Your task to perform on an android device: Look up the best rated hair dryer on Walmart. Image 0: 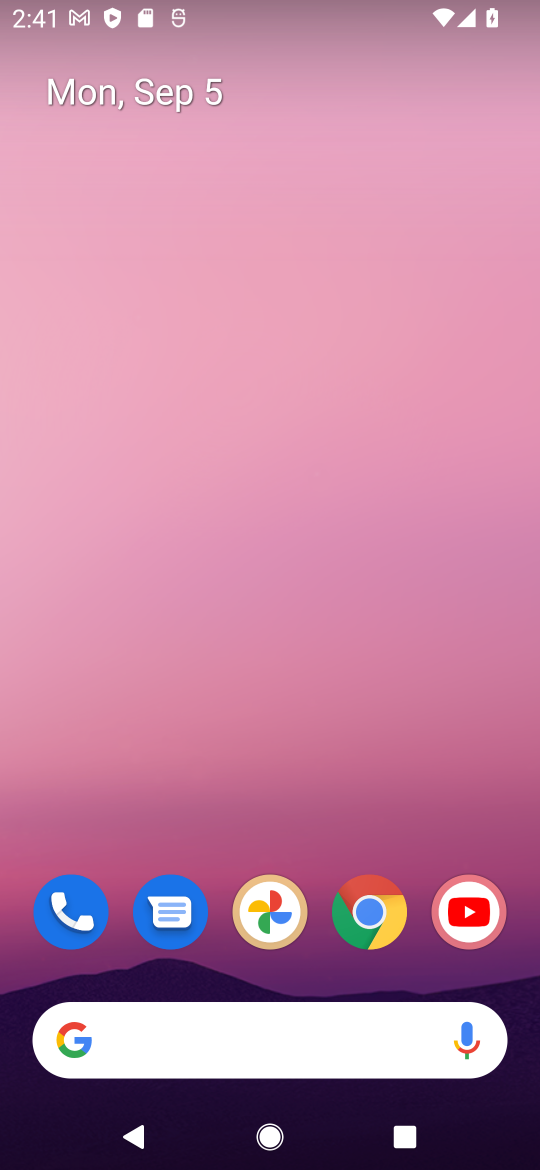
Step 0: click (370, 911)
Your task to perform on an android device: Look up the best rated hair dryer on Walmart. Image 1: 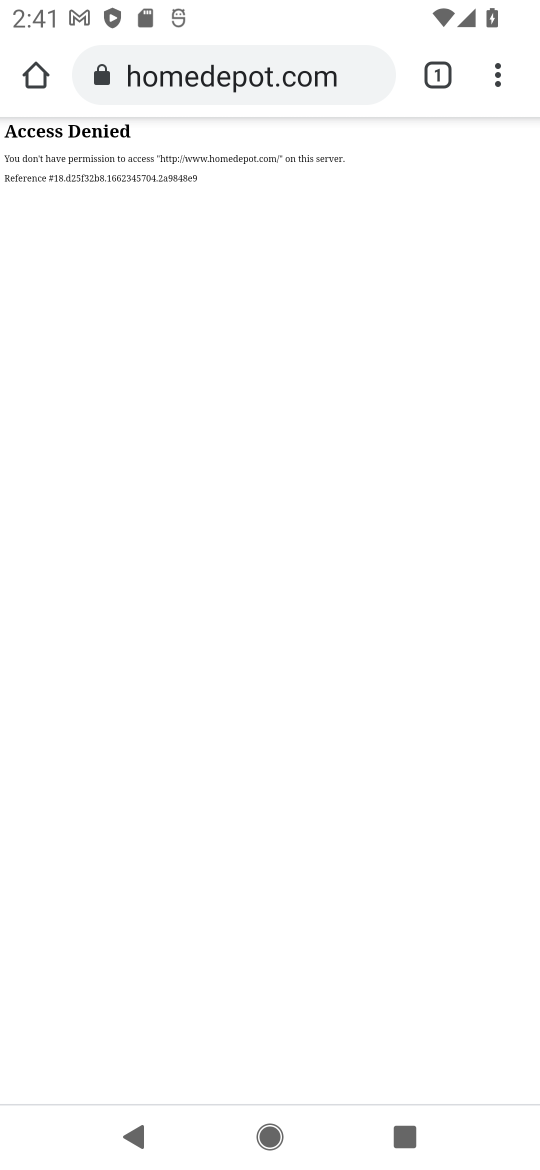
Step 1: click (273, 75)
Your task to perform on an android device: Look up the best rated hair dryer on Walmart. Image 2: 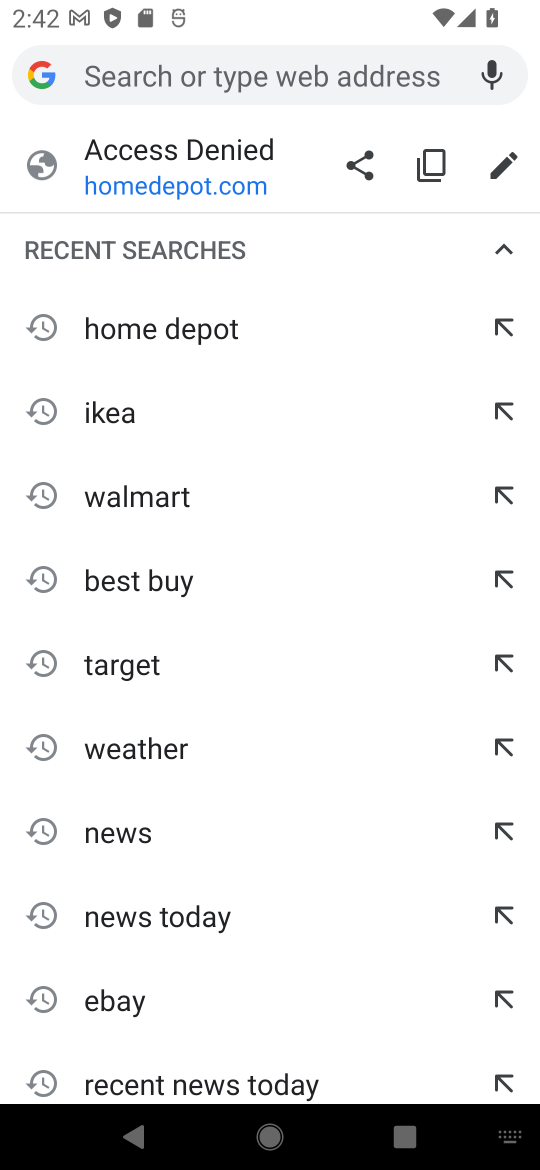
Step 2: type "walmart"
Your task to perform on an android device: Look up the best rated hair dryer on Walmart. Image 3: 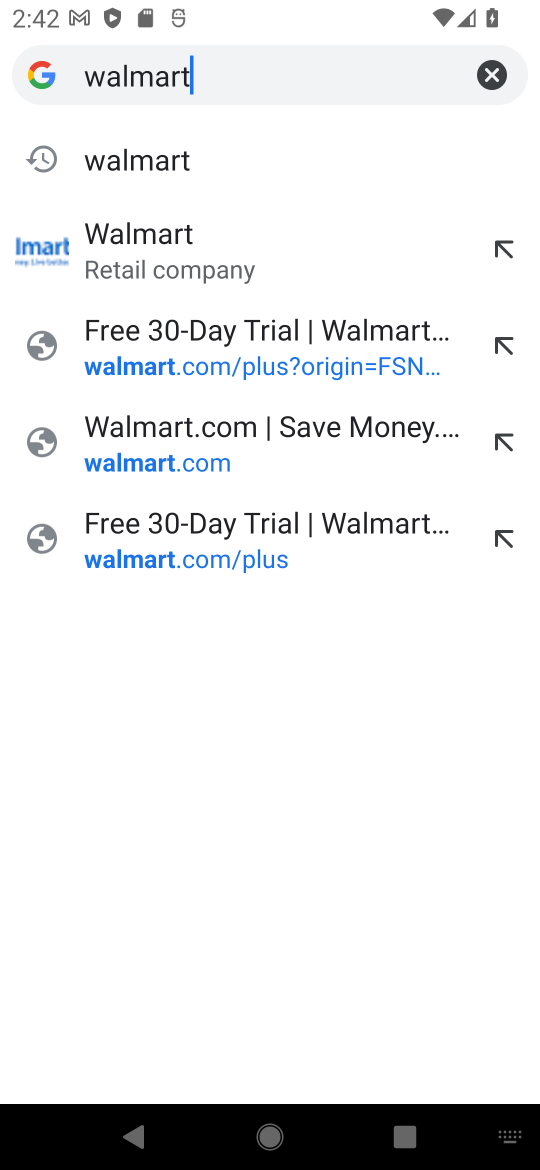
Step 3: press enter
Your task to perform on an android device: Look up the best rated hair dryer on Walmart. Image 4: 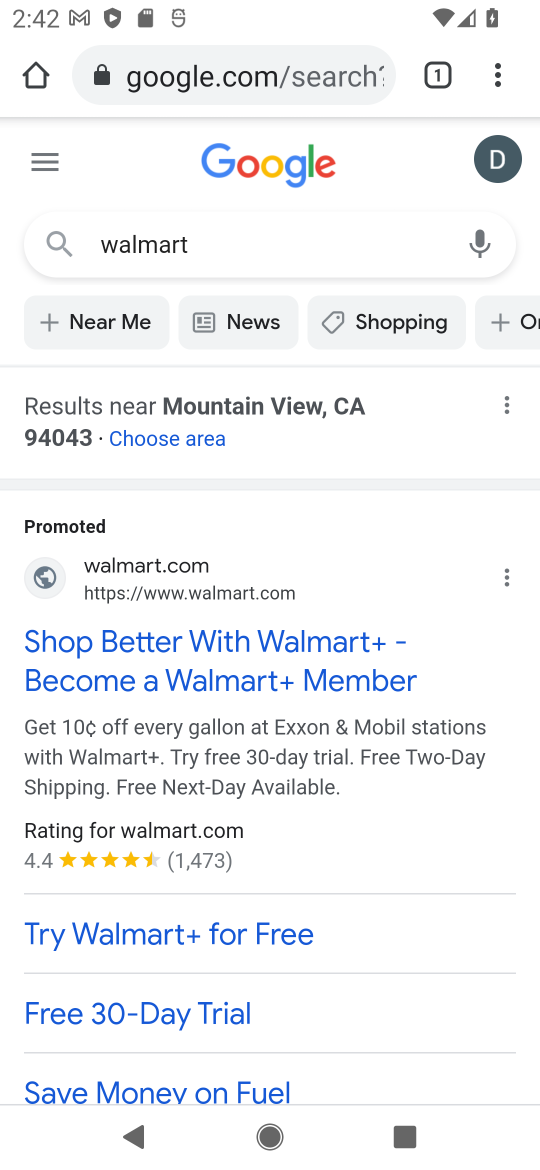
Step 4: drag from (221, 699) to (214, 547)
Your task to perform on an android device: Look up the best rated hair dryer on Walmart. Image 5: 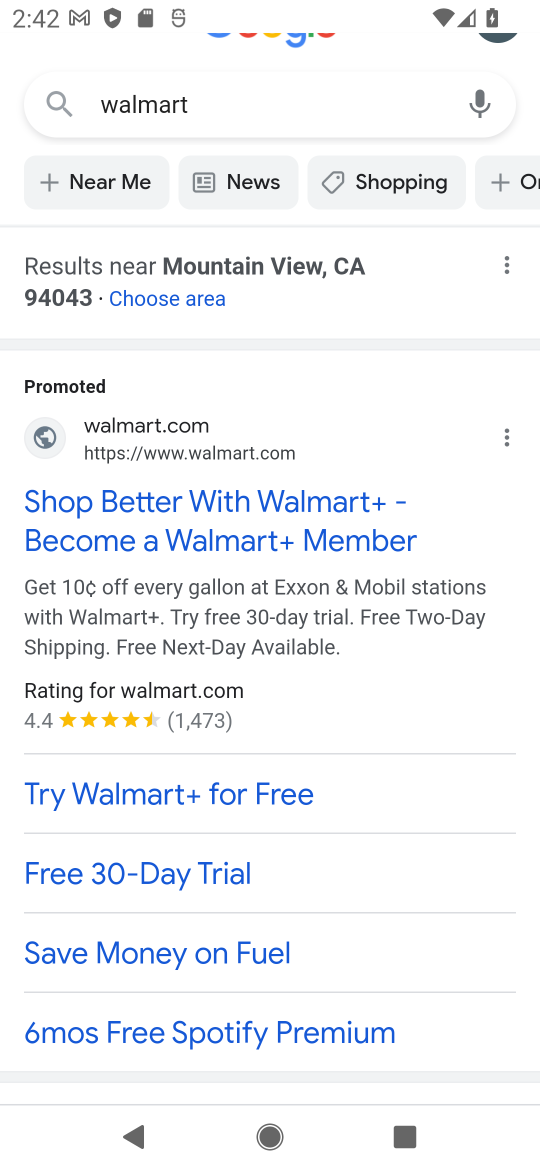
Step 5: drag from (276, 705) to (286, 514)
Your task to perform on an android device: Look up the best rated hair dryer on Walmart. Image 6: 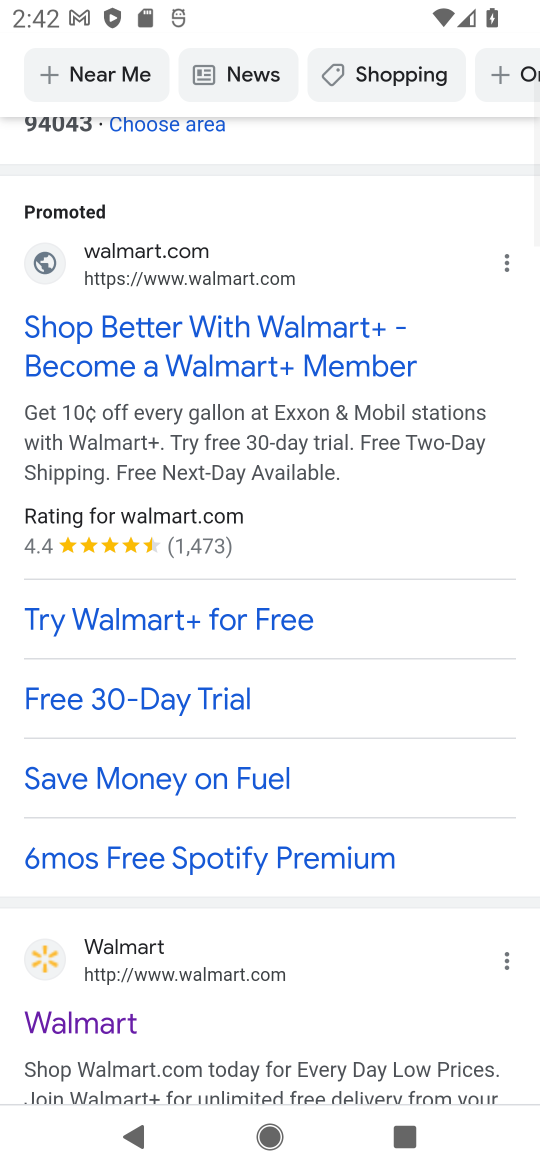
Step 6: drag from (346, 710) to (342, 525)
Your task to perform on an android device: Look up the best rated hair dryer on Walmart. Image 7: 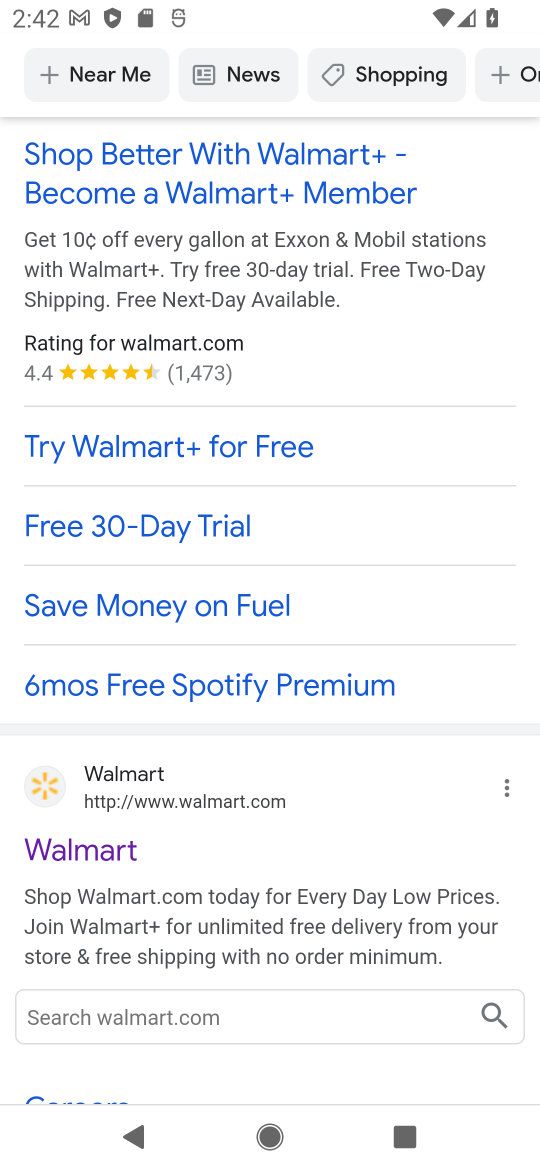
Step 7: click (90, 859)
Your task to perform on an android device: Look up the best rated hair dryer on Walmart. Image 8: 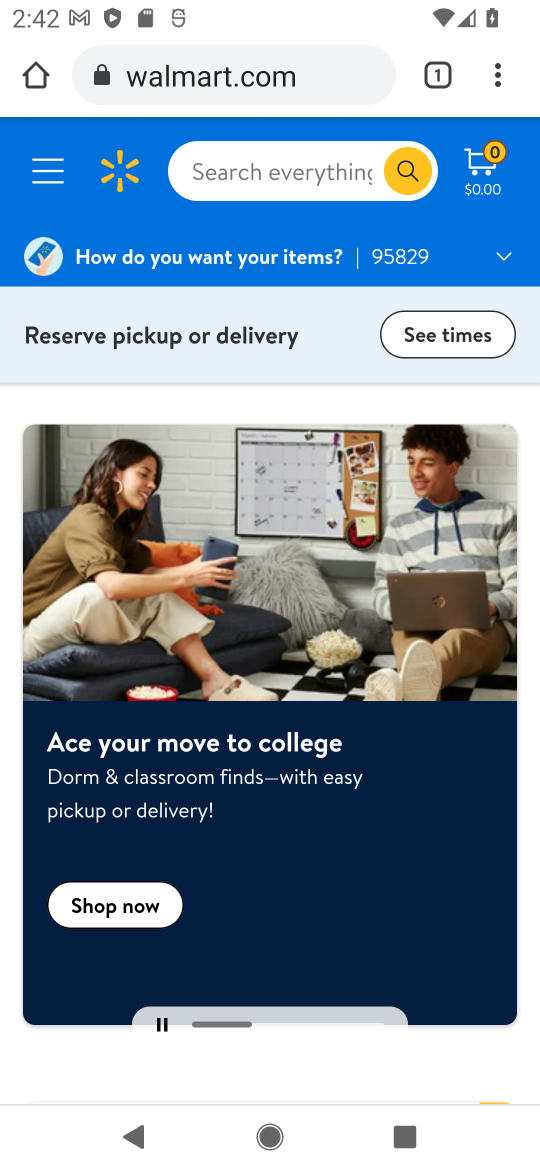
Step 8: click (258, 169)
Your task to perform on an android device: Look up the best rated hair dryer on Walmart. Image 9: 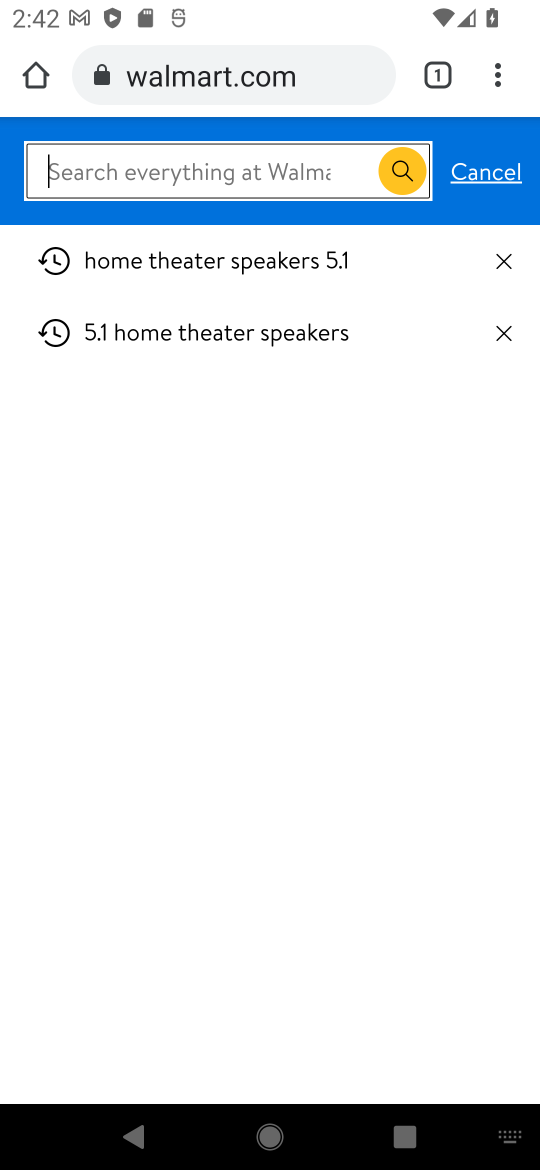
Step 9: type "h"
Your task to perform on an android device: Look up the best rated hair dryer on Walmart. Image 10: 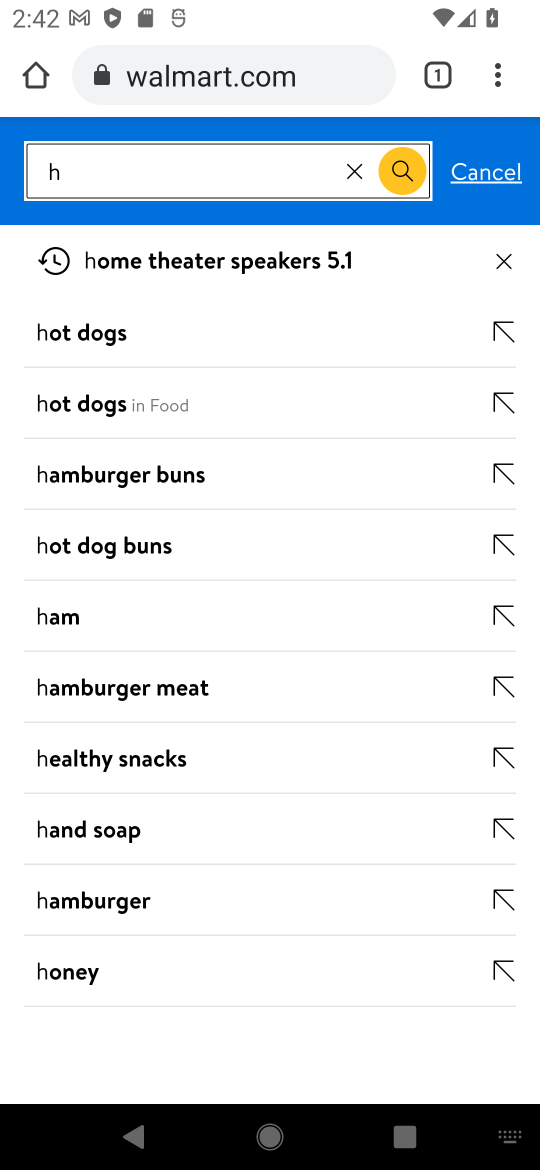
Step 10: type "hair dryer"
Your task to perform on an android device: Look up the best rated hair dryer on Walmart. Image 11: 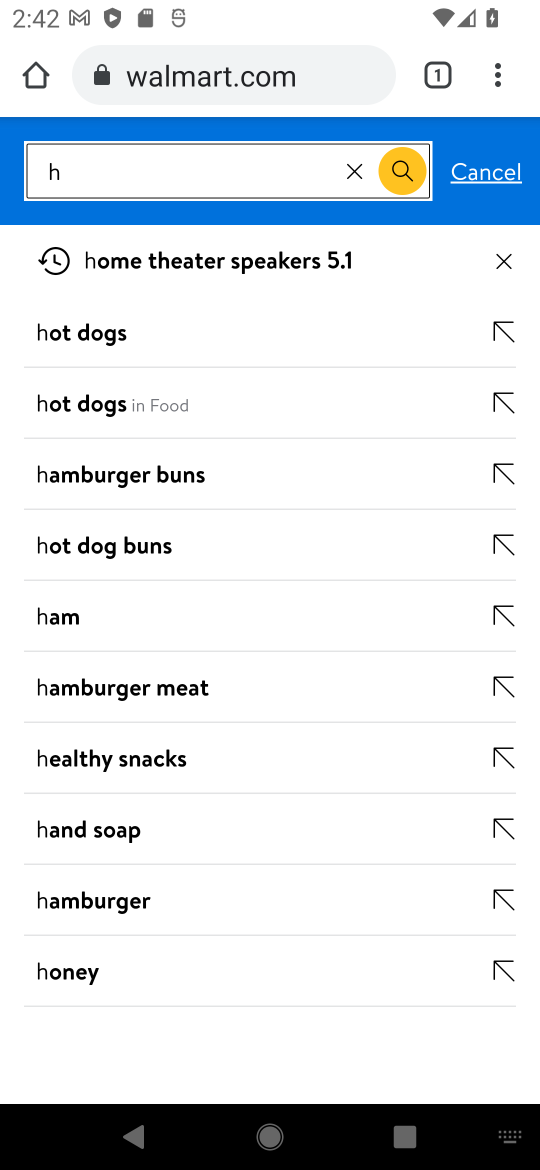
Step 11: type ""
Your task to perform on an android device: Look up the best rated hair dryer on Walmart. Image 12: 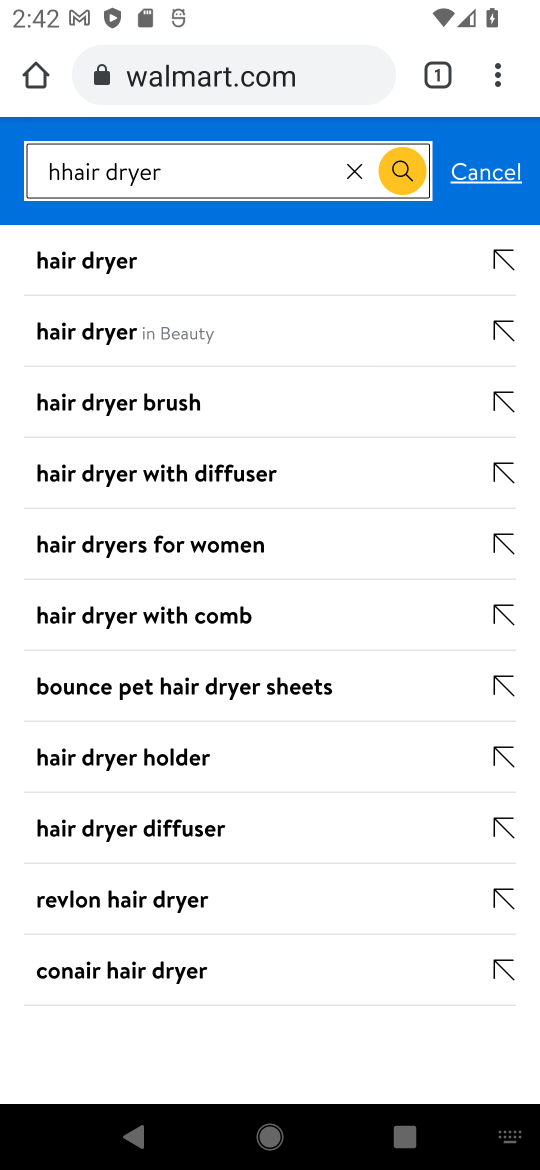
Step 12: press enter
Your task to perform on an android device: Look up the best rated hair dryer on Walmart. Image 13: 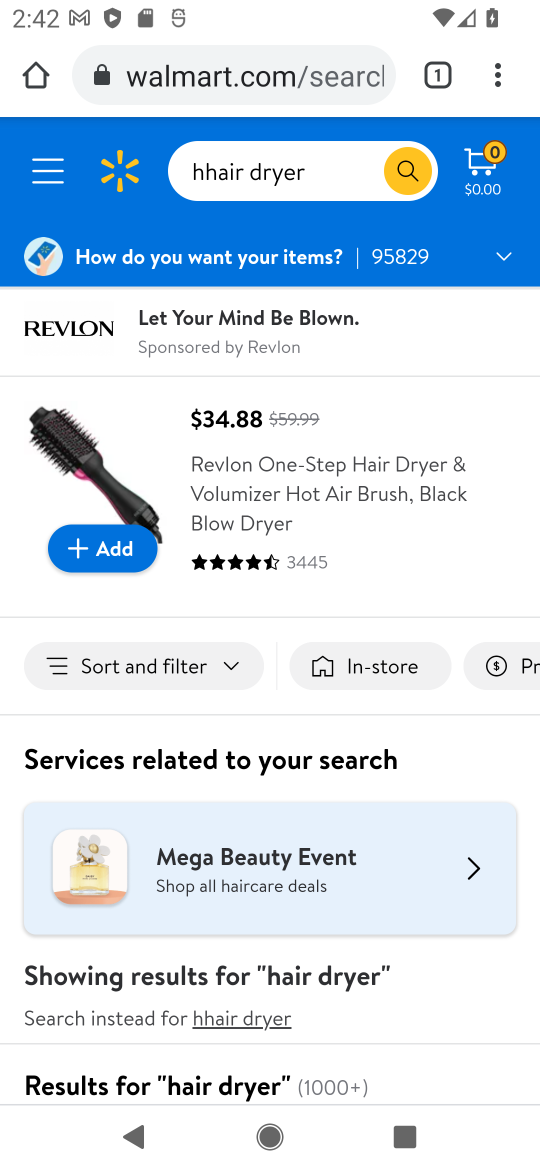
Step 13: drag from (240, 841) to (259, 665)
Your task to perform on an android device: Look up the best rated hair dryer on Walmart. Image 14: 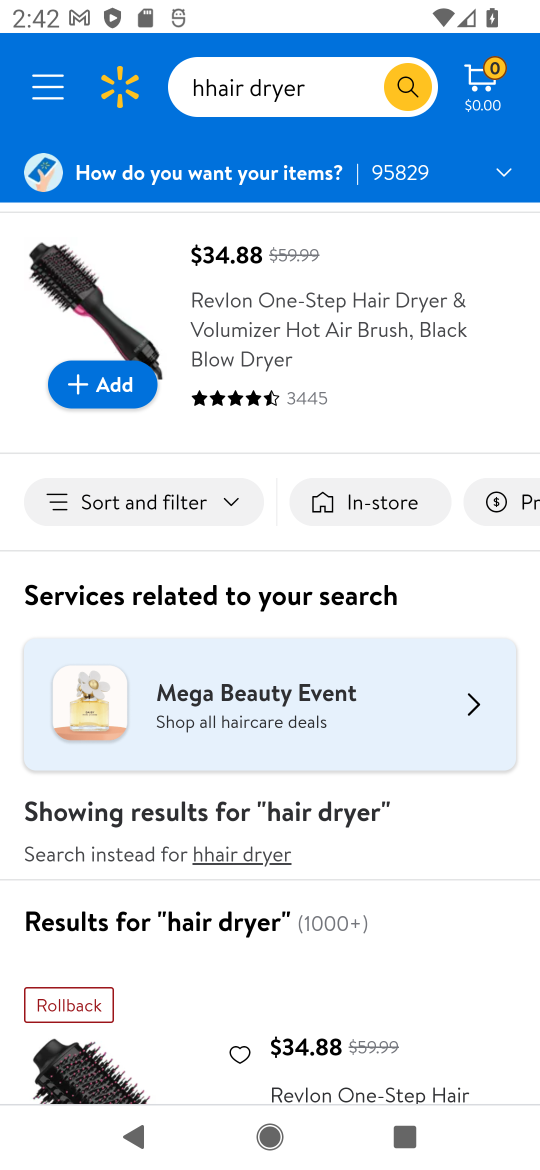
Step 14: click (141, 496)
Your task to perform on an android device: Look up the best rated hair dryer on Walmart. Image 15: 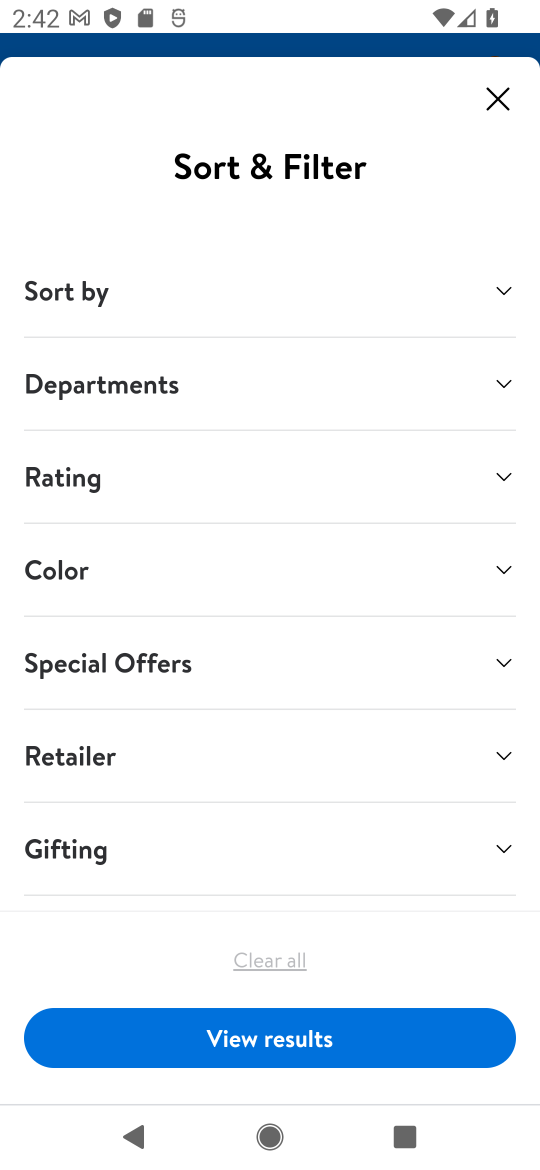
Step 15: click (201, 485)
Your task to perform on an android device: Look up the best rated hair dryer on Walmart. Image 16: 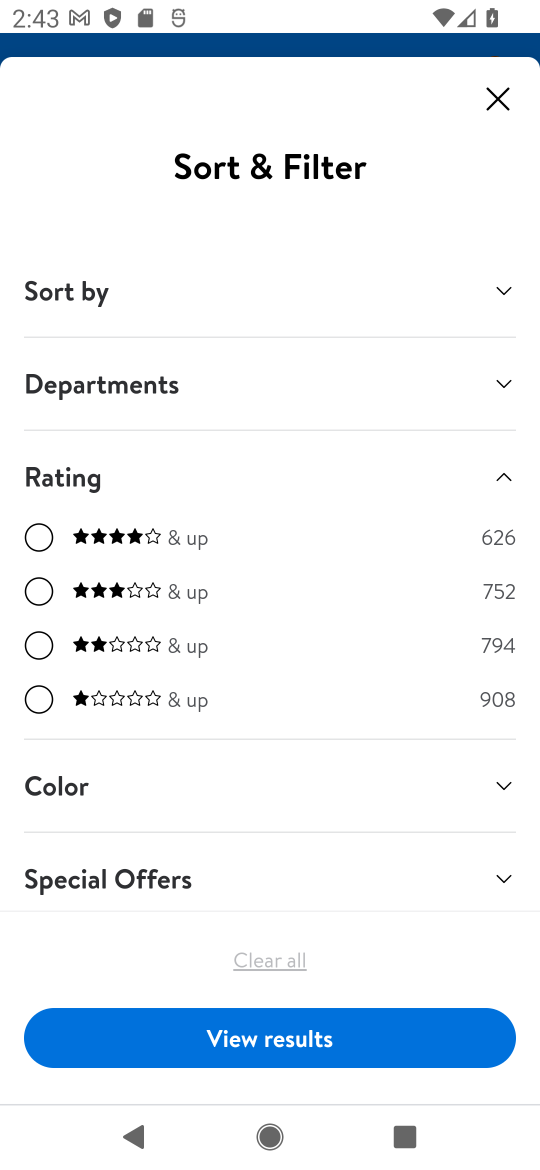
Step 16: click (169, 548)
Your task to perform on an android device: Look up the best rated hair dryer on Walmart. Image 17: 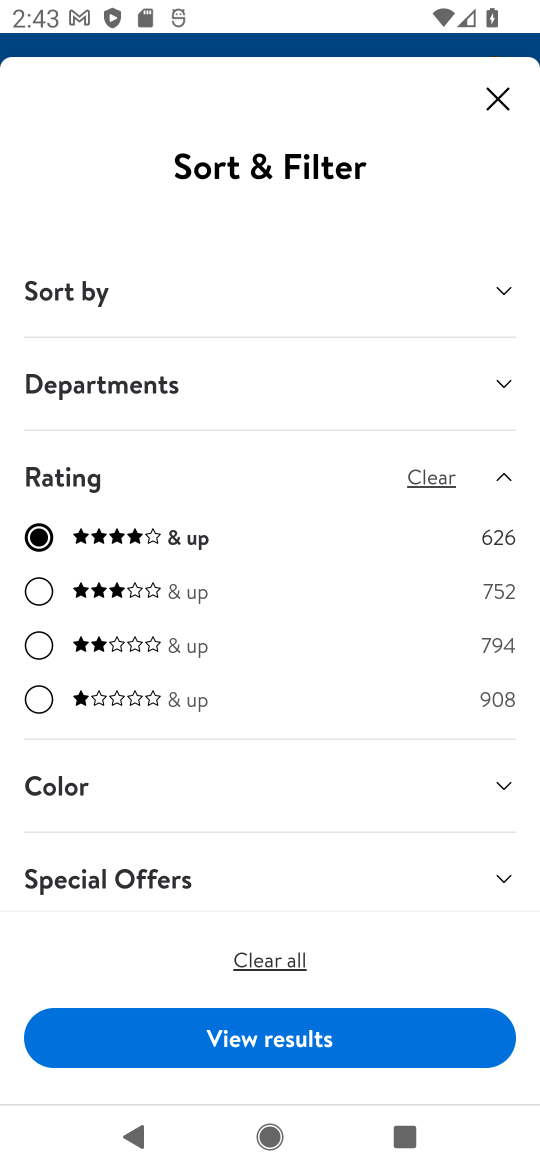
Step 17: click (265, 1054)
Your task to perform on an android device: Look up the best rated hair dryer on Walmart. Image 18: 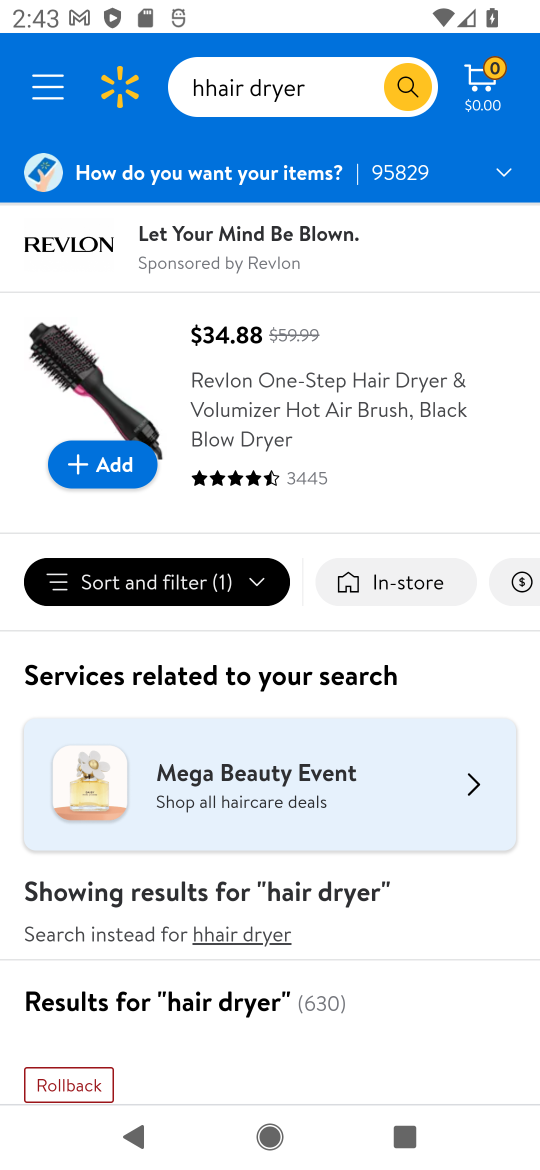
Step 18: task complete